Your task to perform on an android device: open app "ColorNote Notepad Notes" (install if not already installed) Image 0: 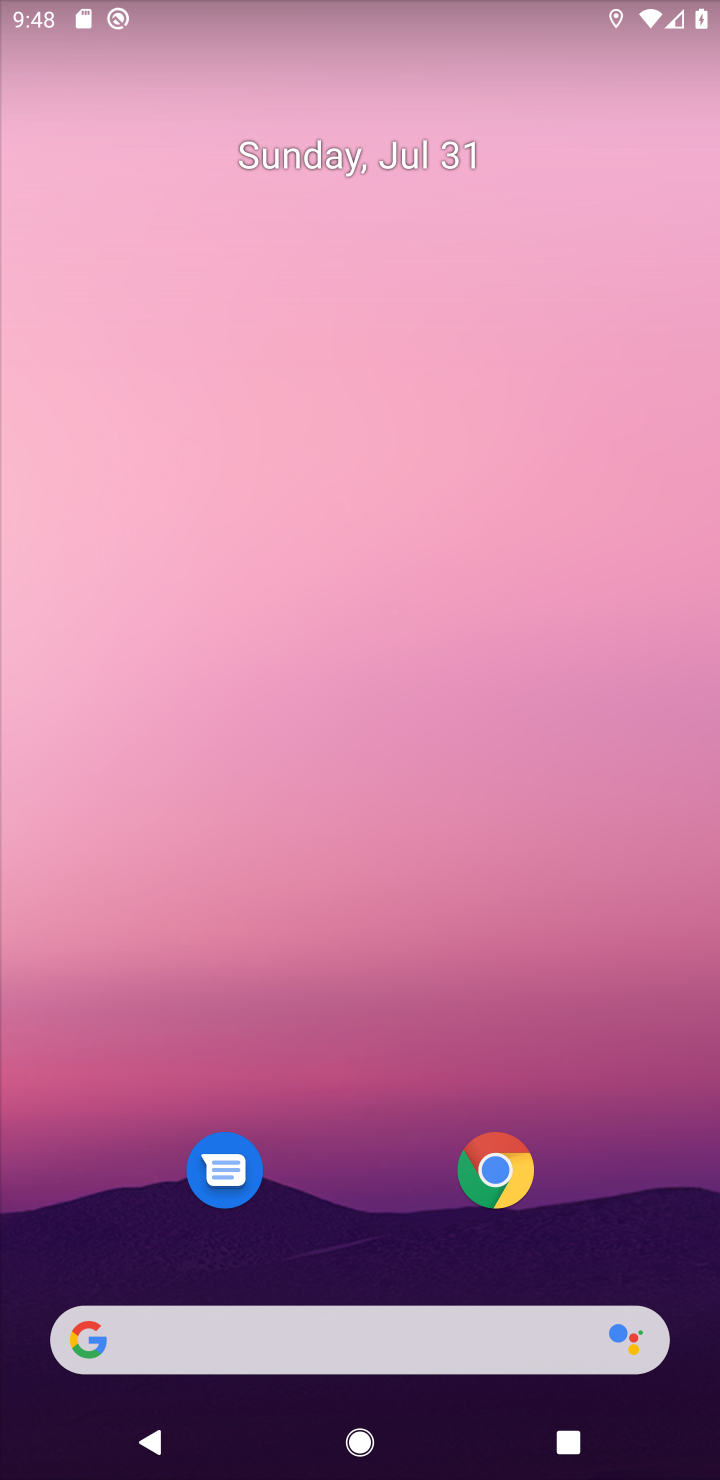
Step 0: click (501, 130)
Your task to perform on an android device: open app "ColorNote Notepad Notes" (install if not already installed) Image 1: 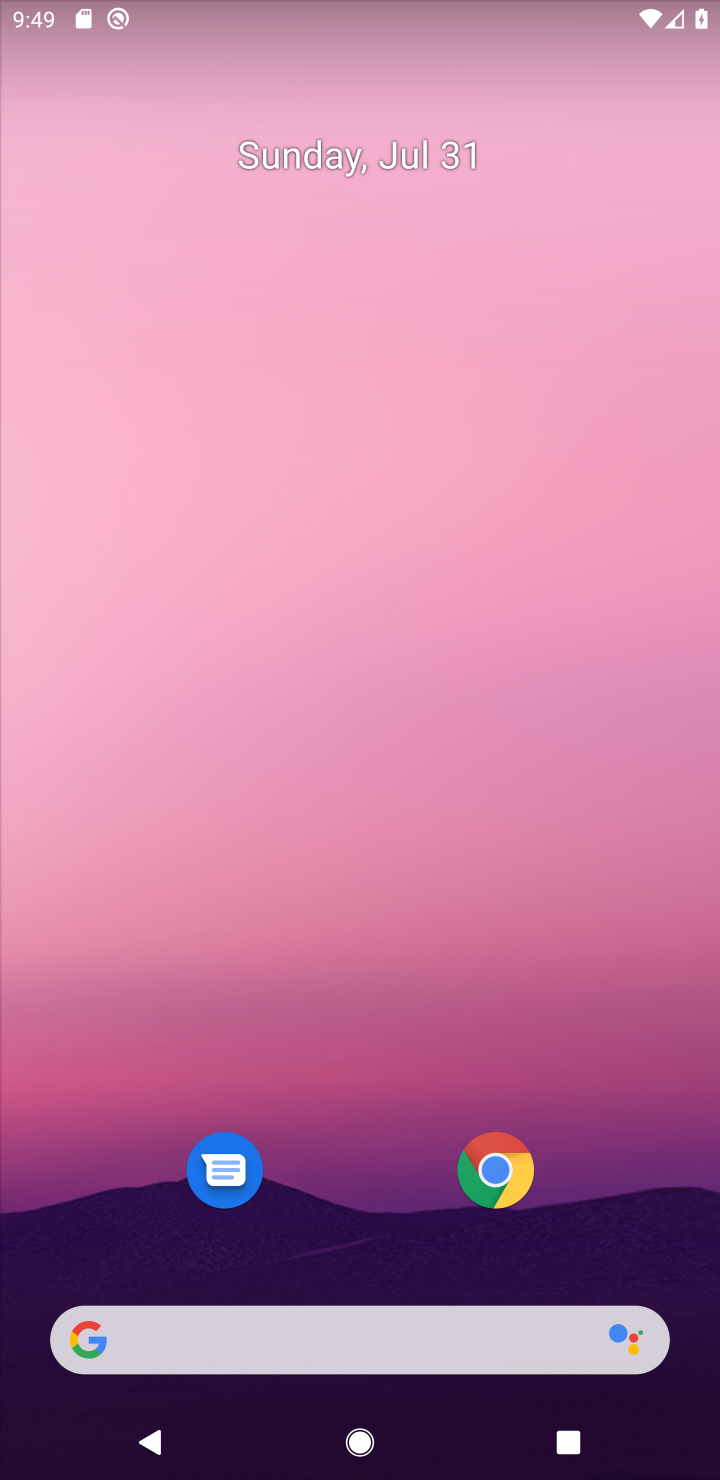
Step 1: drag from (709, 1236) to (464, 124)
Your task to perform on an android device: open app "ColorNote Notepad Notes" (install if not already installed) Image 2: 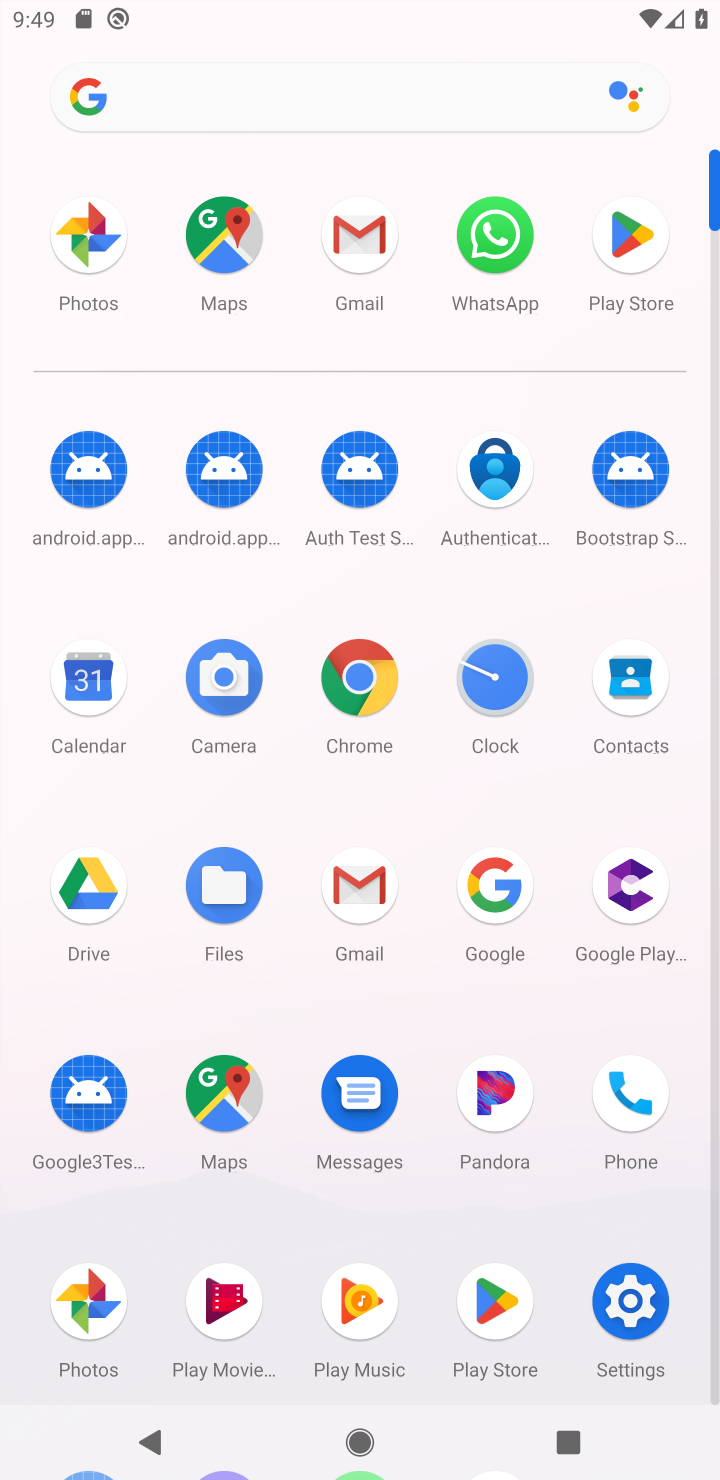
Step 2: click (616, 264)
Your task to perform on an android device: open app "ColorNote Notepad Notes" (install if not already installed) Image 3: 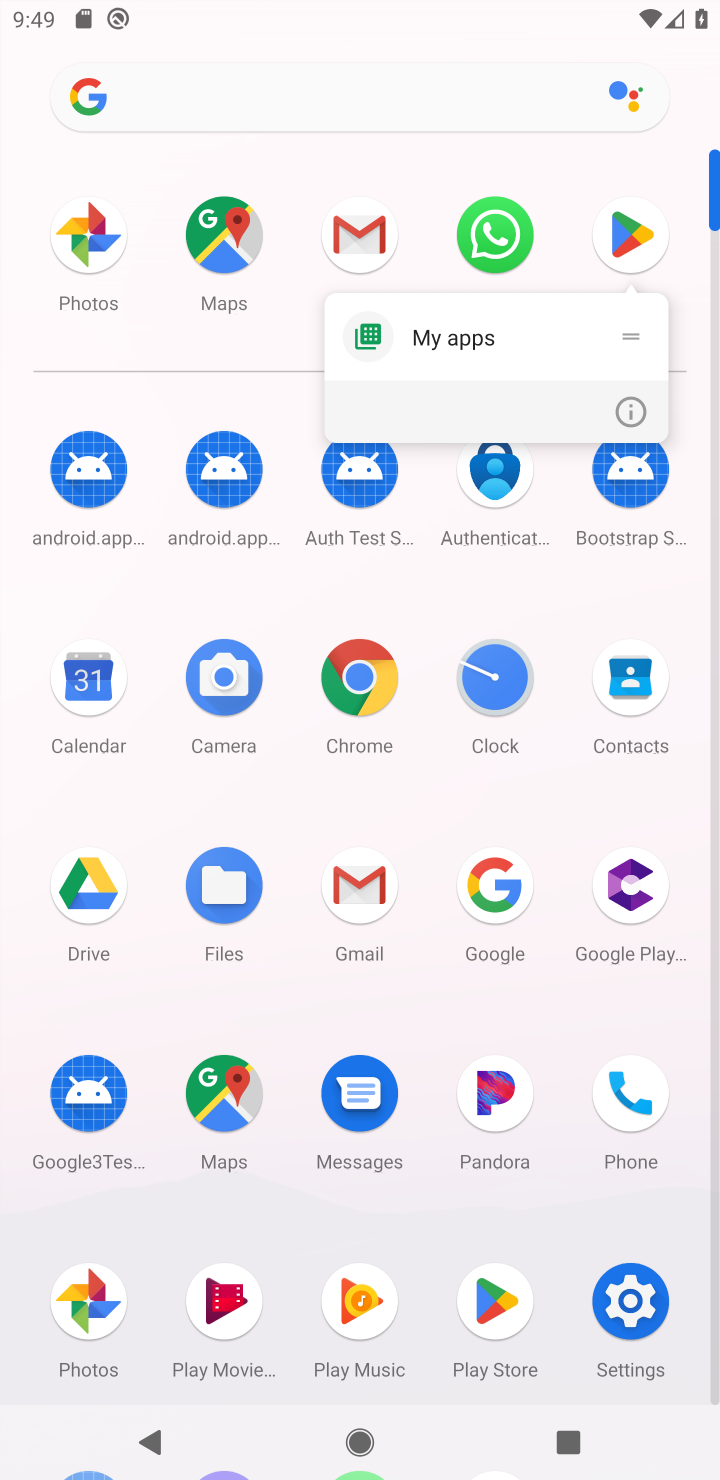
Step 3: click (644, 242)
Your task to perform on an android device: open app "ColorNote Notepad Notes" (install if not already installed) Image 4: 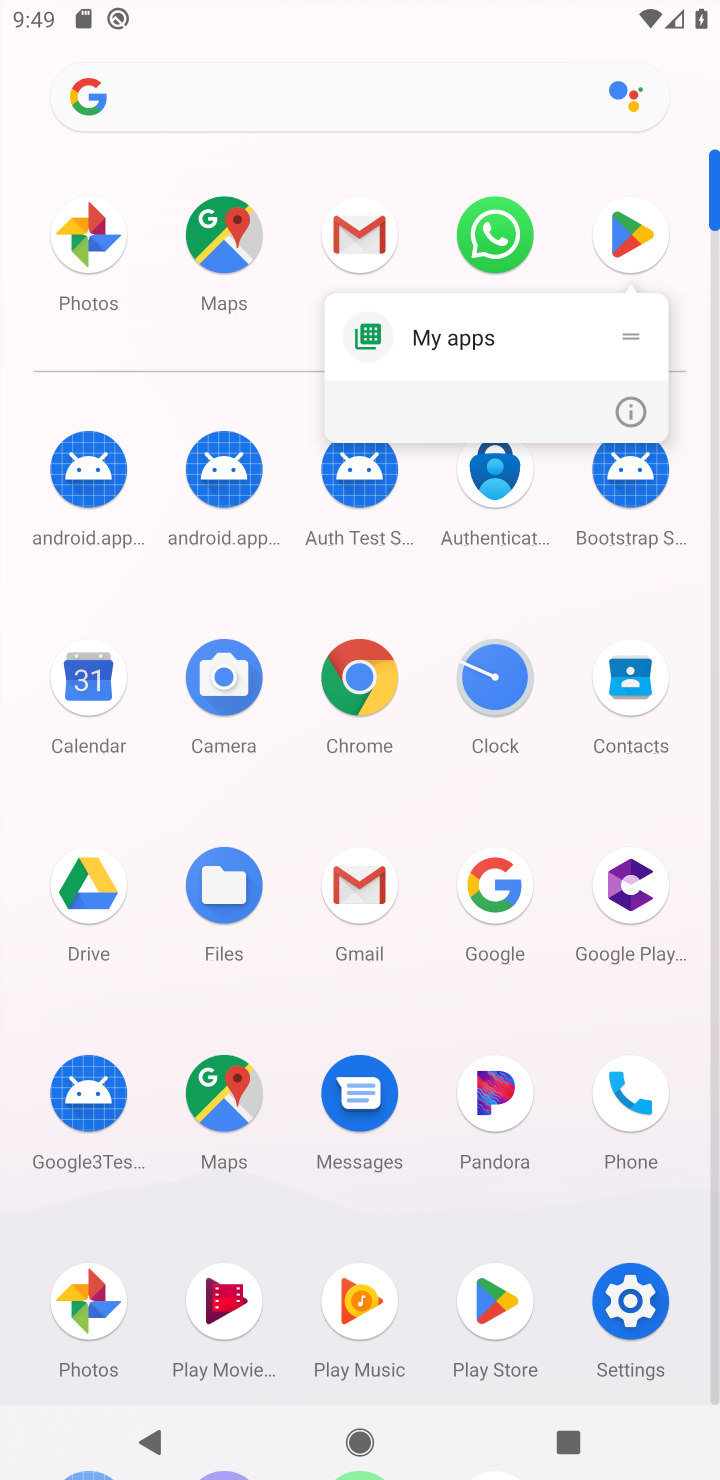
Step 4: click (644, 242)
Your task to perform on an android device: open app "ColorNote Notepad Notes" (install if not already installed) Image 5: 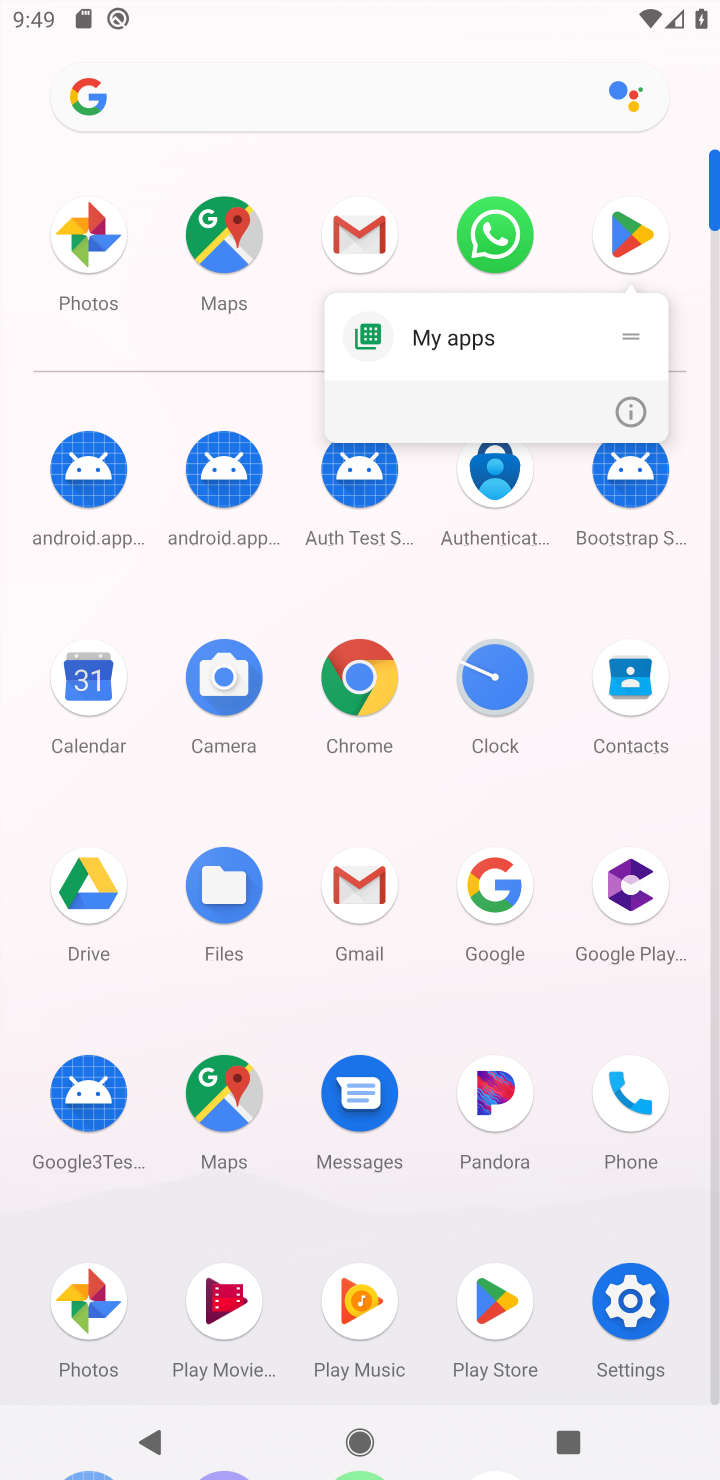
Step 5: click (644, 242)
Your task to perform on an android device: open app "ColorNote Notepad Notes" (install if not already installed) Image 6: 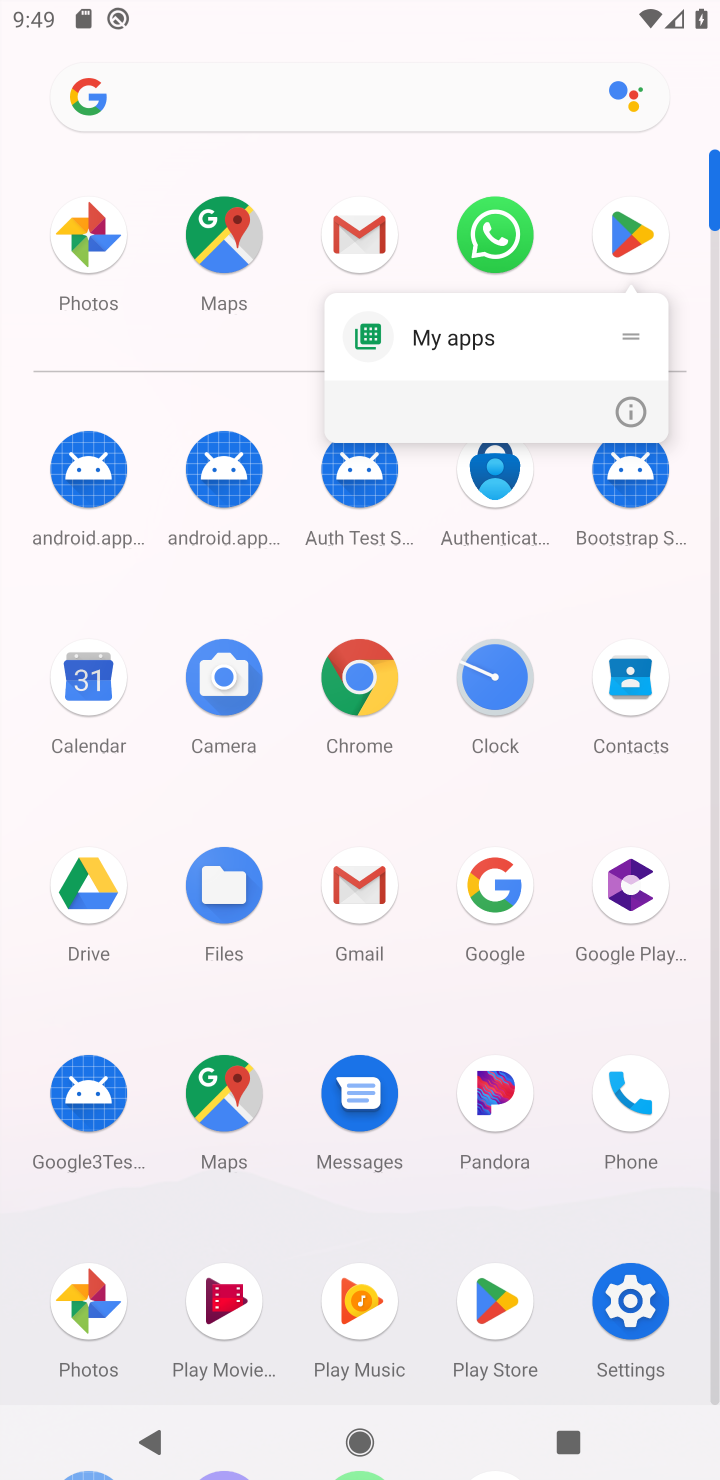
Step 6: click (644, 242)
Your task to perform on an android device: open app "ColorNote Notepad Notes" (install if not already installed) Image 7: 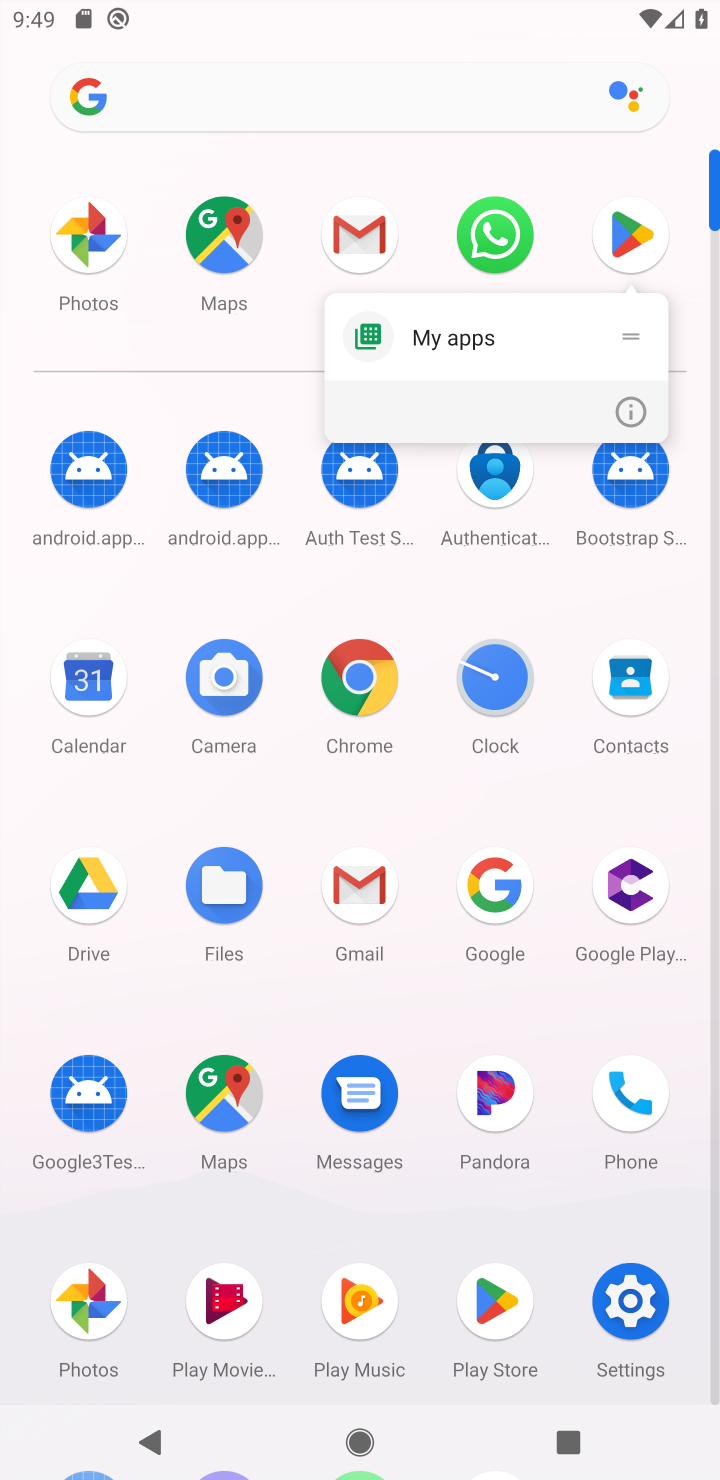
Step 7: click (619, 240)
Your task to perform on an android device: open app "ColorNote Notepad Notes" (install if not already installed) Image 8: 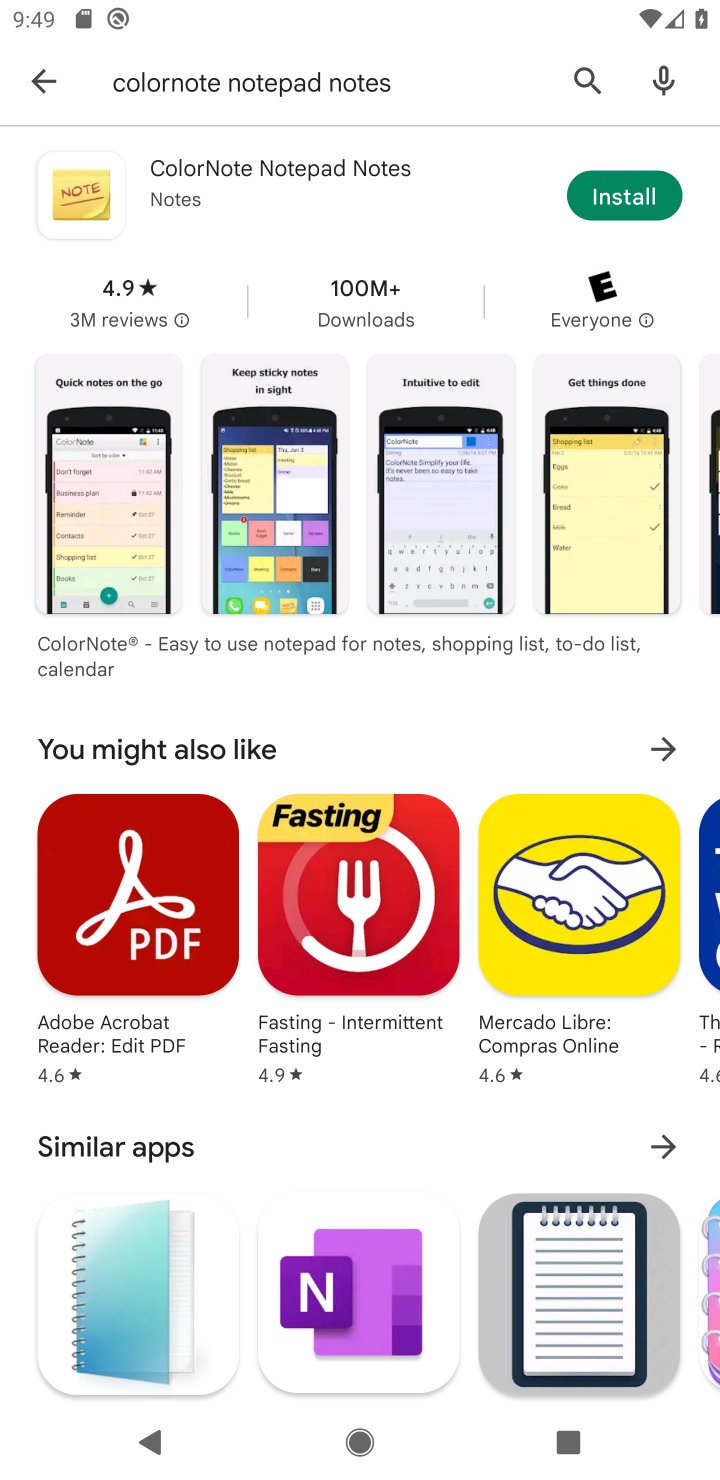
Step 8: press back button
Your task to perform on an android device: open app "ColorNote Notepad Notes" (install if not already installed) Image 9: 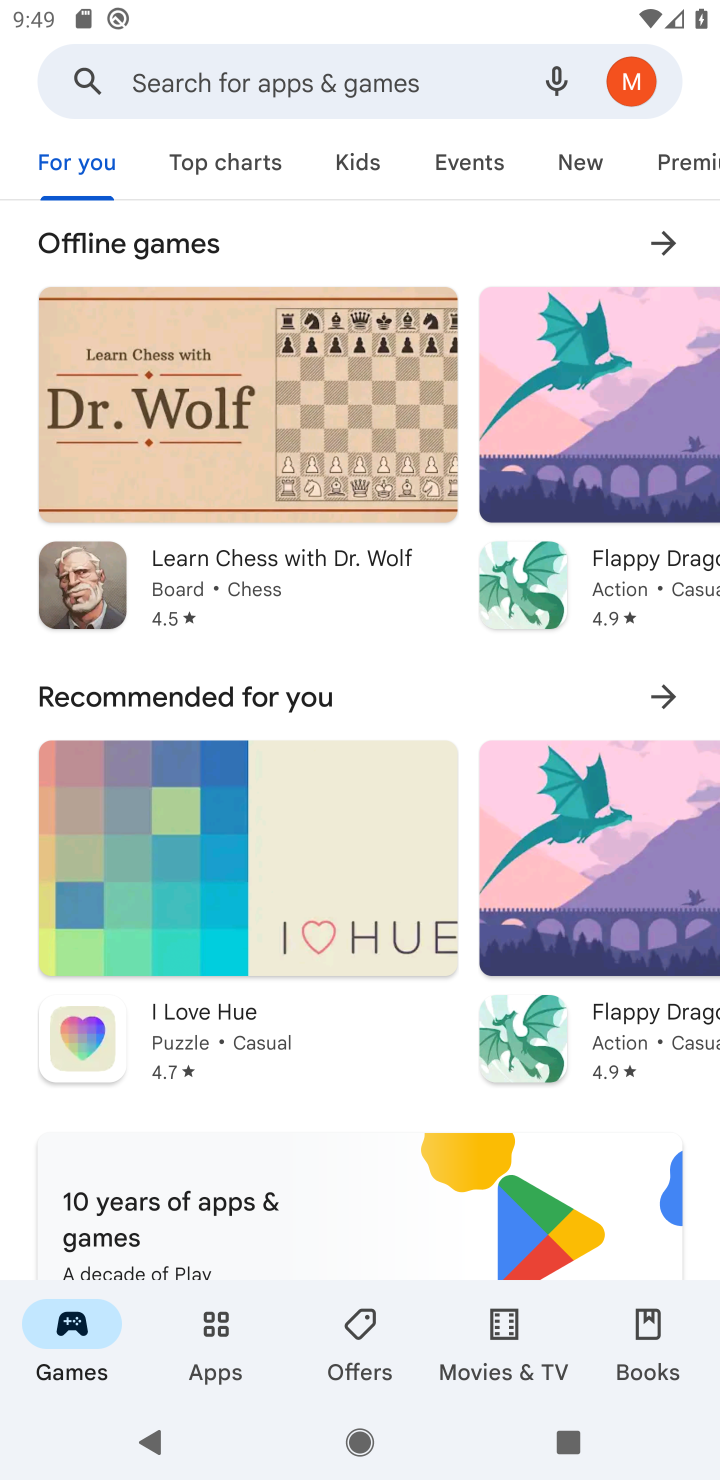
Step 9: click (316, 73)
Your task to perform on an android device: open app "ColorNote Notepad Notes" (install if not already installed) Image 10: 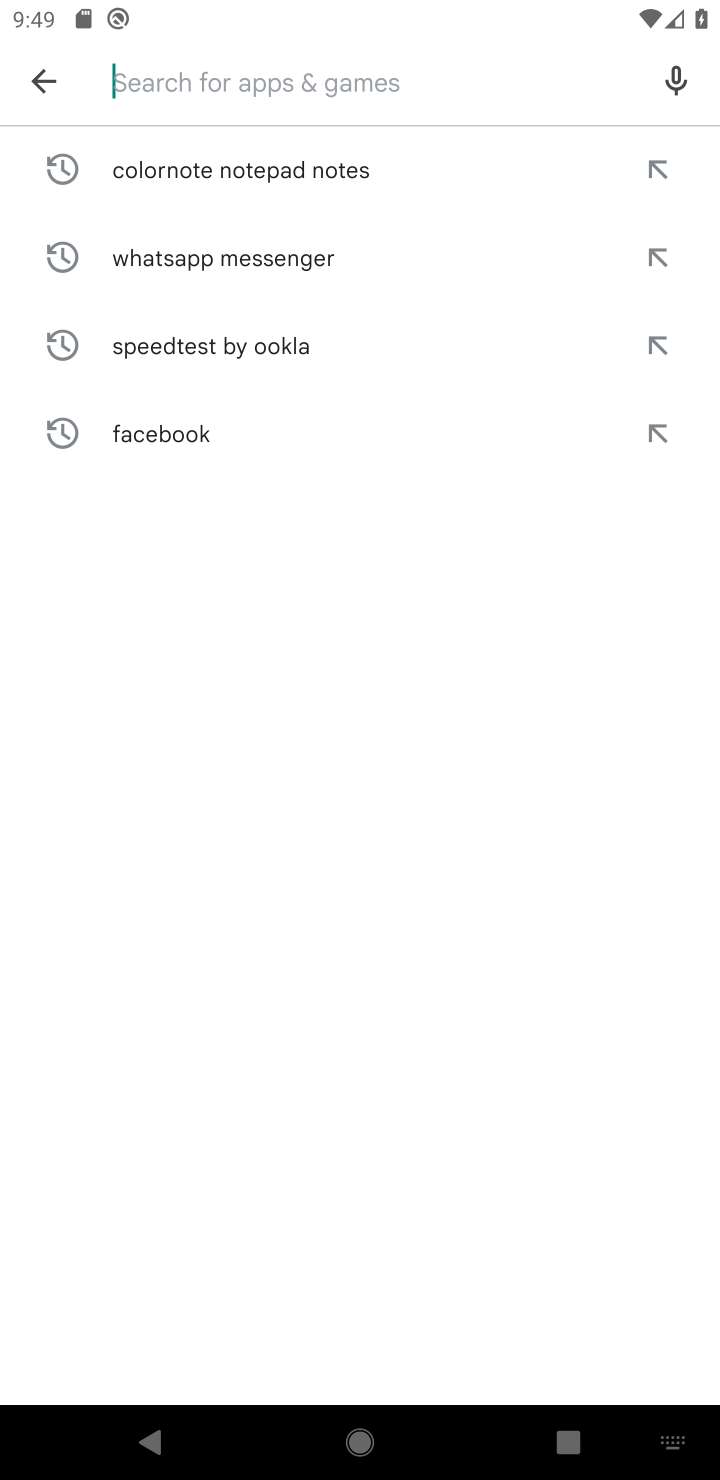
Step 10: type "ColorNote Notepad Notes"
Your task to perform on an android device: open app "ColorNote Notepad Notes" (install if not already installed) Image 11: 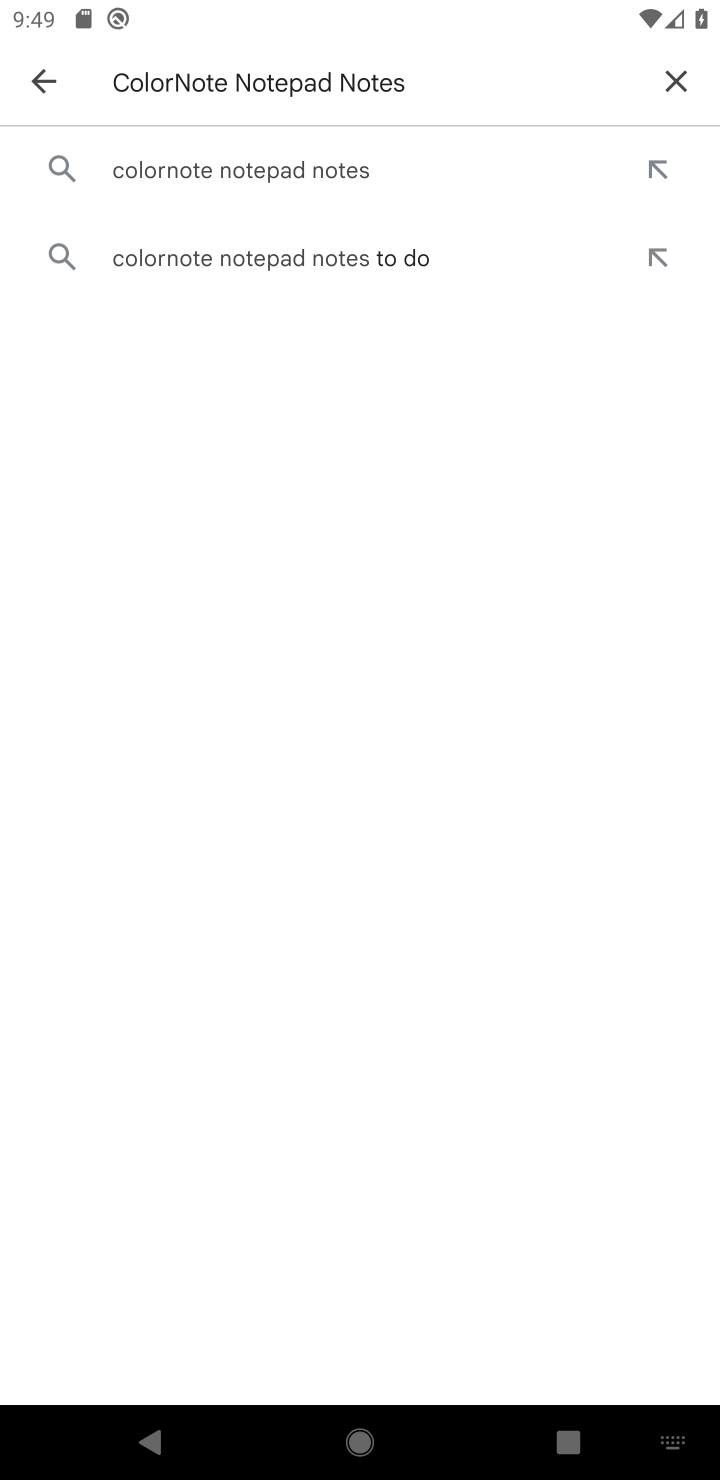
Step 11: click (274, 177)
Your task to perform on an android device: open app "ColorNote Notepad Notes" (install if not already installed) Image 12: 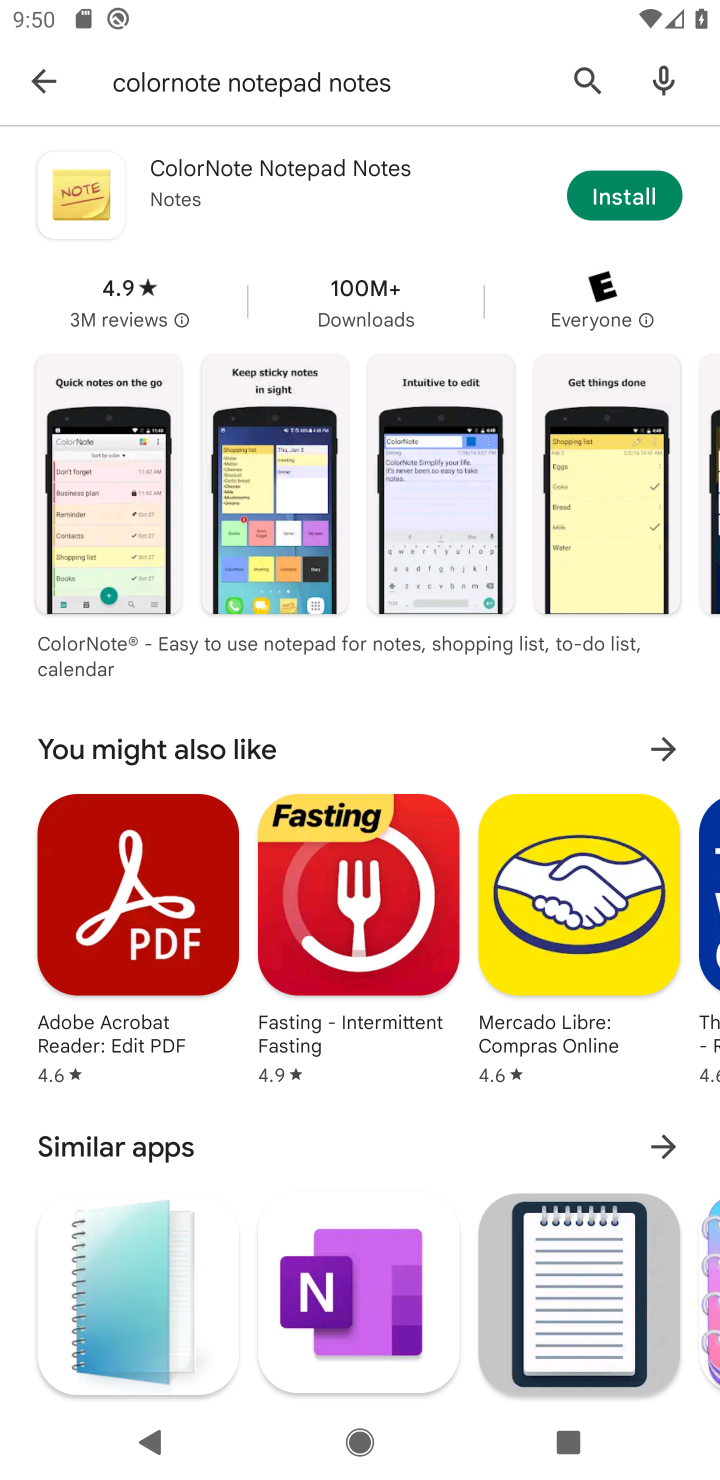
Step 12: task complete